Your task to perform on an android device: turn off airplane mode Image 0: 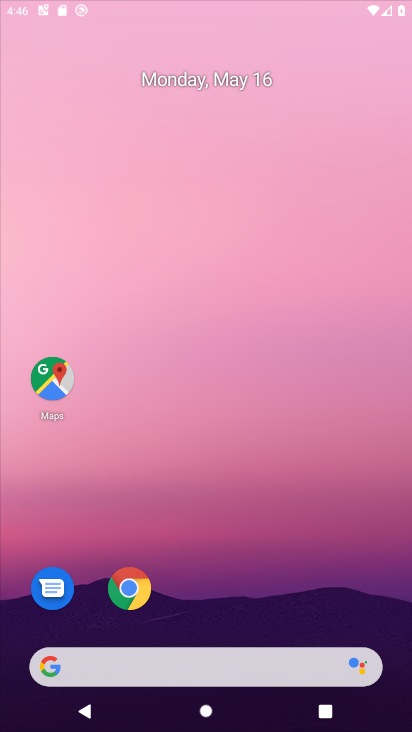
Step 0: drag from (233, 273) to (227, 167)
Your task to perform on an android device: turn off airplane mode Image 1: 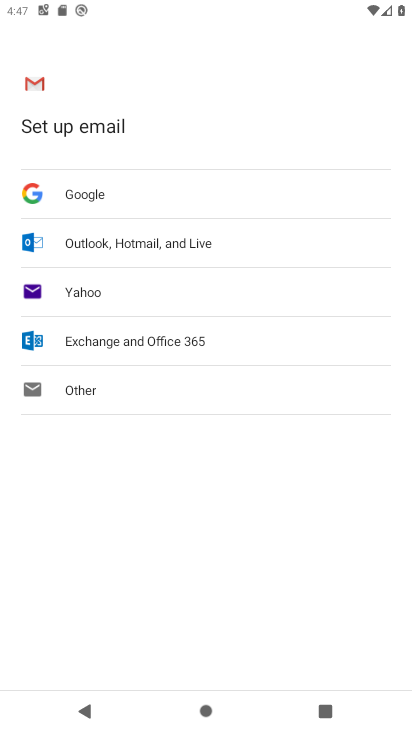
Step 1: press home button
Your task to perform on an android device: turn off airplane mode Image 2: 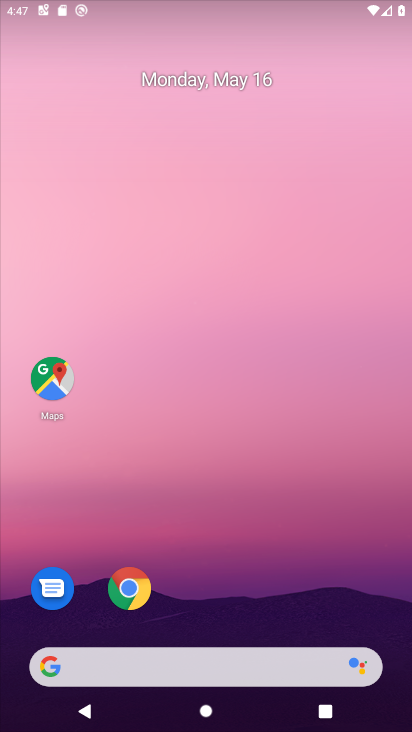
Step 2: drag from (269, 560) to (195, 71)
Your task to perform on an android device: turn off airplane mode Image 3: 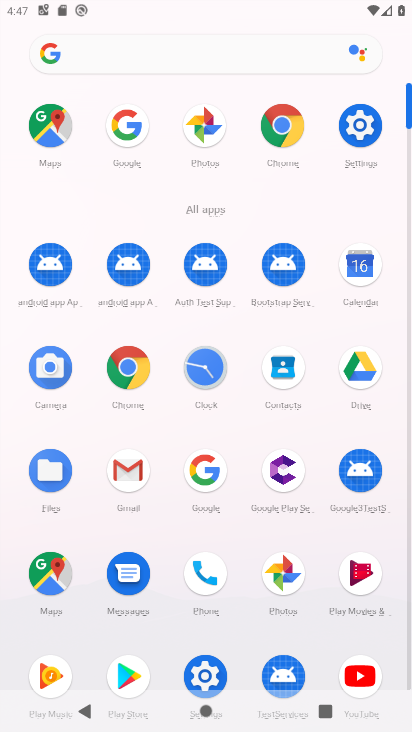
Step 3: click (350, 123)
Your task to perform on an android device: turn off airplane mode Image 4: 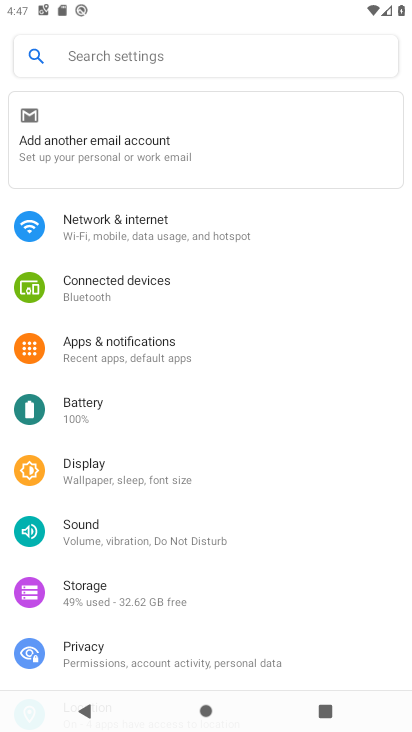
Step 4: click (113, 217)
Your task to perform on an android device: turn off airplane mode Image 5: 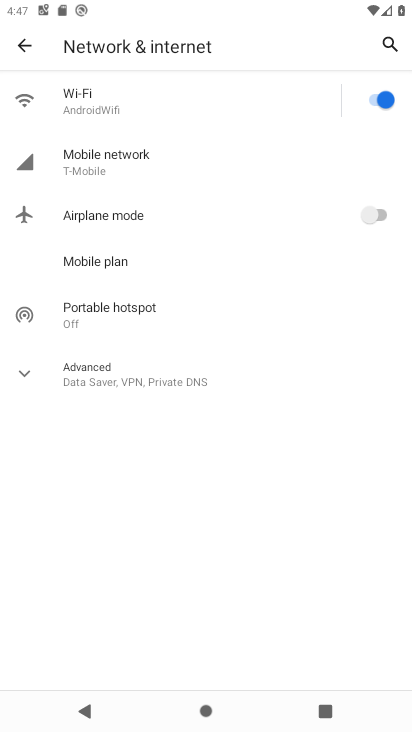
Step 5: task complete